Your task to perform on an android device: open chrome privacy settings Image 0: 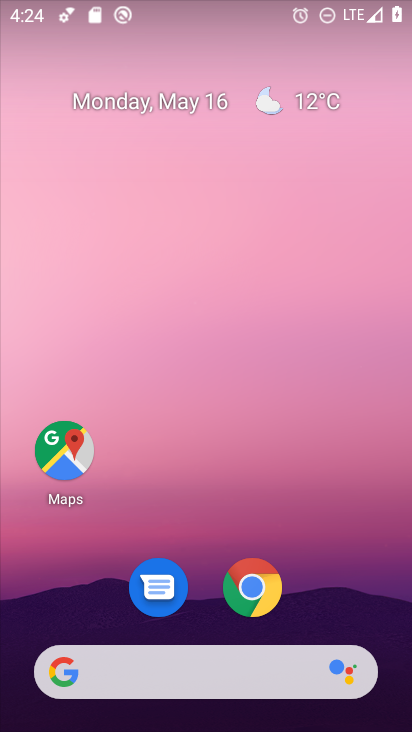
Step 0: click (260, 579)
Your task to perform on an android device: open chrome privacy settings Image 1: 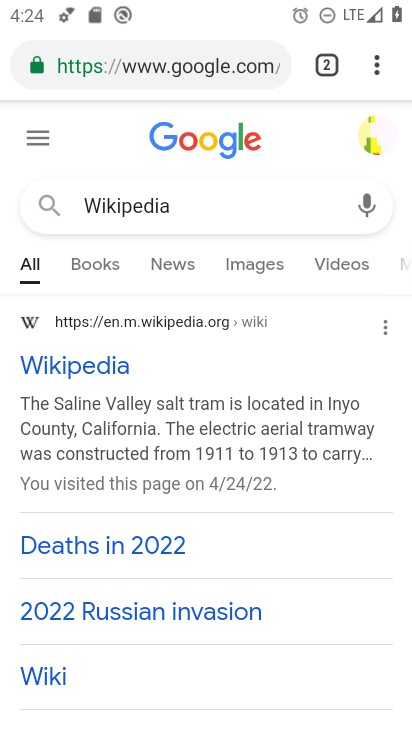
Step 1: click (373, 63)
Your task to perform on an android device: open chrome privacy settings Image 2: 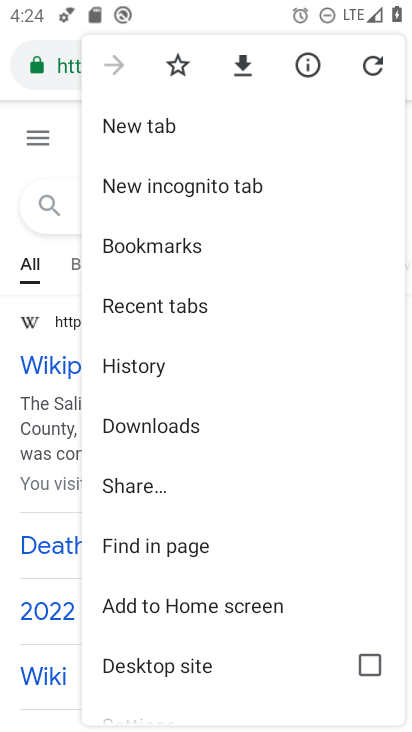
Step 2: drag from (272, 638) to (217, 348)
Your task to perform on an android device: open chrome privacy settings Image 3: 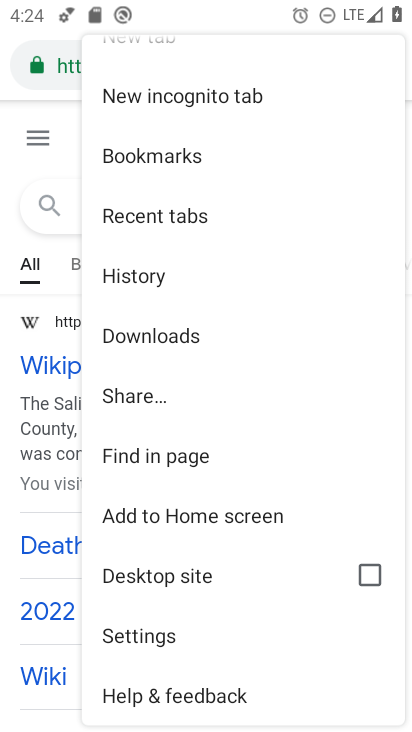
Step 3: drag from (248, 659) to (251, 339)
Your task to perform on an android device: open chrome privacy settings Image 4: 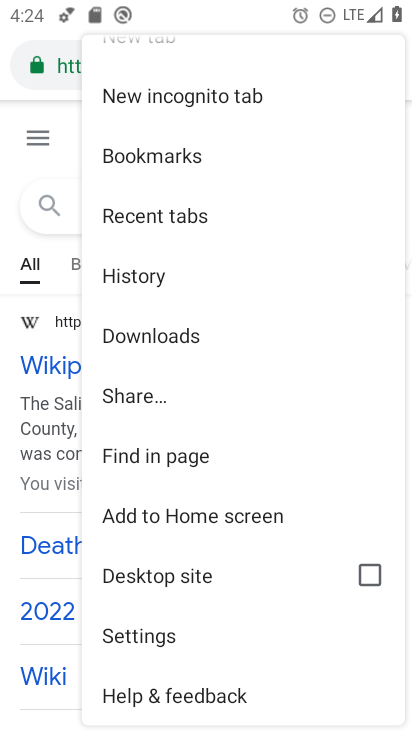
Step 4: click (120, 644)
Your task to perform on an android device: open chrome privacy settings Image 5: 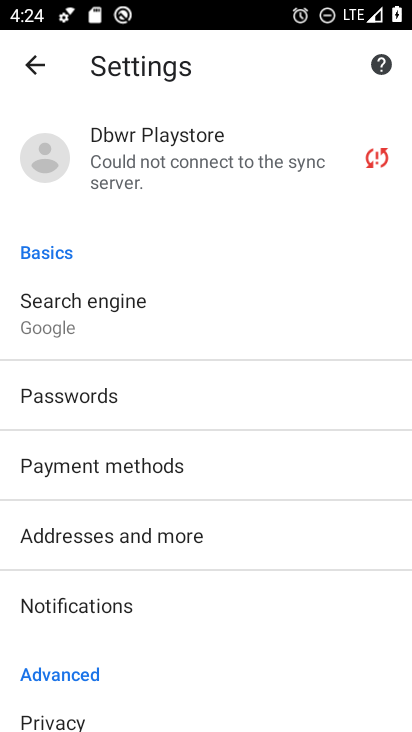
Step 5: drag from (231, 667) to (266, 400)
Your task to perform on an android device: open chrome privacy settings Image 6: 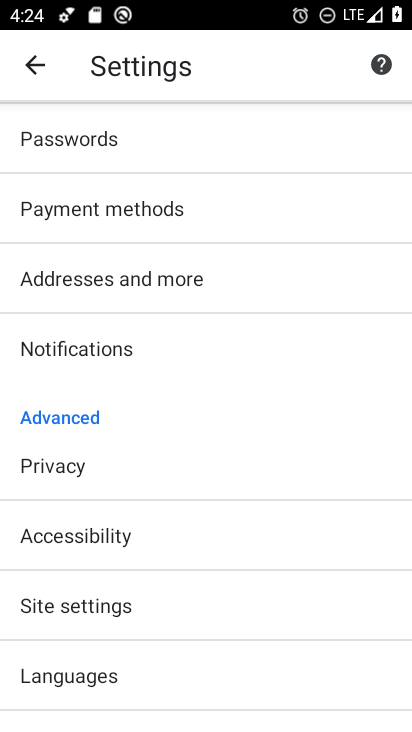
Step 6: click (63, 458)
Your task to perform on an android device: open chrome privacy settings Image 7: 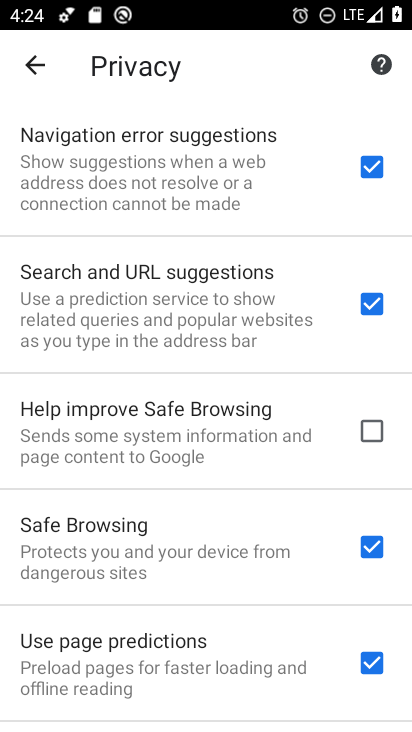
Step 7: task complete